Your task to perform on an android device: open a bookmark in the chrome app Image 0: 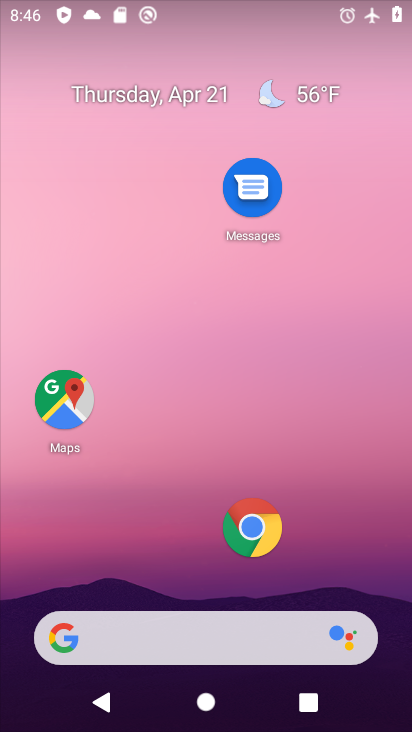
Step 0: drag from (181, 592) to (372, 129)
Your task to perform on an android device: open a bookmark in the chrome app Image 1: 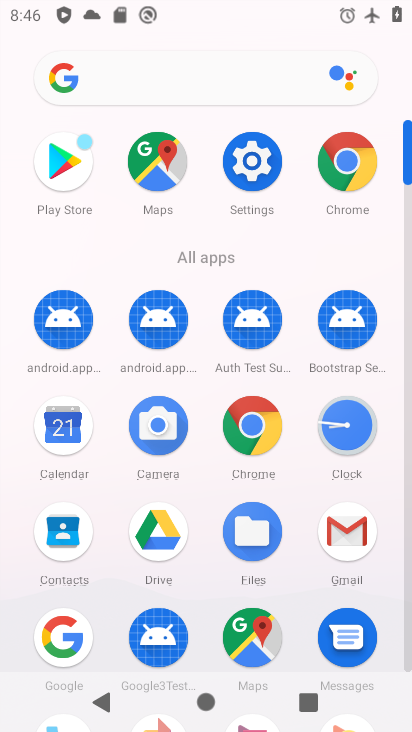
Step 1: click (345, 178)
Your task to perform on an android device: open a bookmark in the chrome app Image 2: 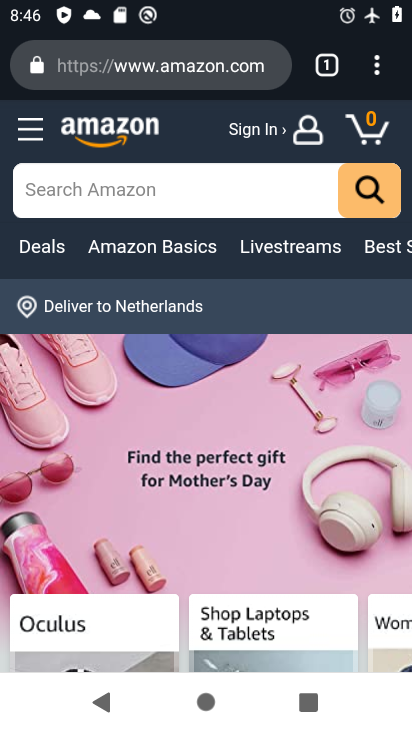
Step 2: click (374, 78)
Your task to perform on an android device: open a bookmark in the chrome app Image 3: 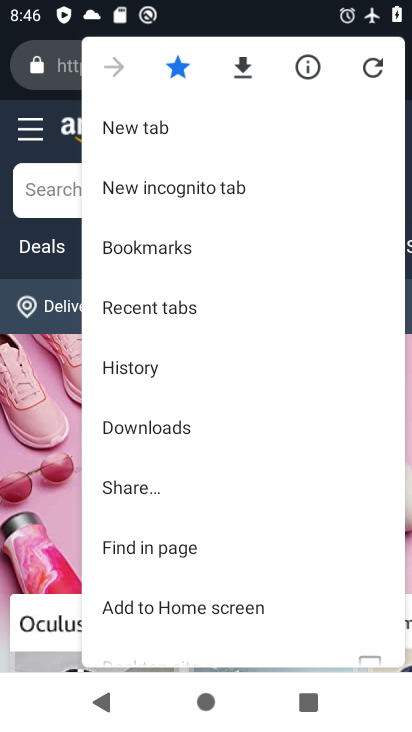
Step 3: click (164, 248)
Your task to perform on an android device: open a bookmark in the chrome app Image 4: 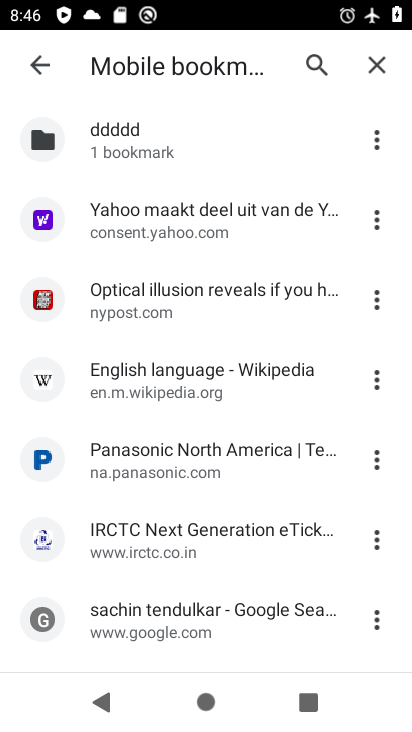
Step 4: task complete